Your task to perform on an android device: How much does the new iPad cost on eBay? Image 0: 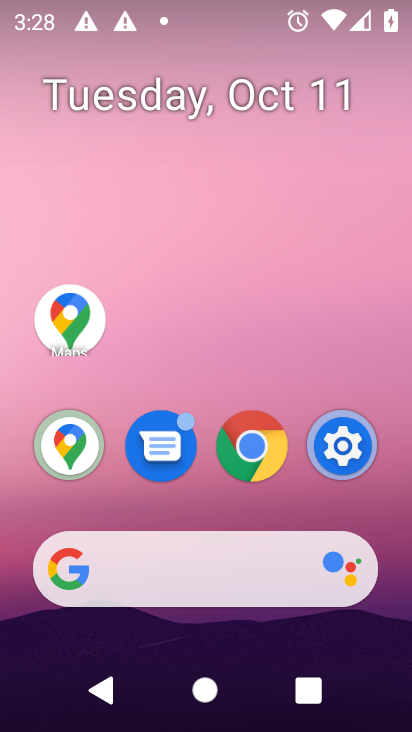
Step 0: click (259, 451)
Your task to perform on an android device: How much does the new iPad cost on eBay? Image 1: 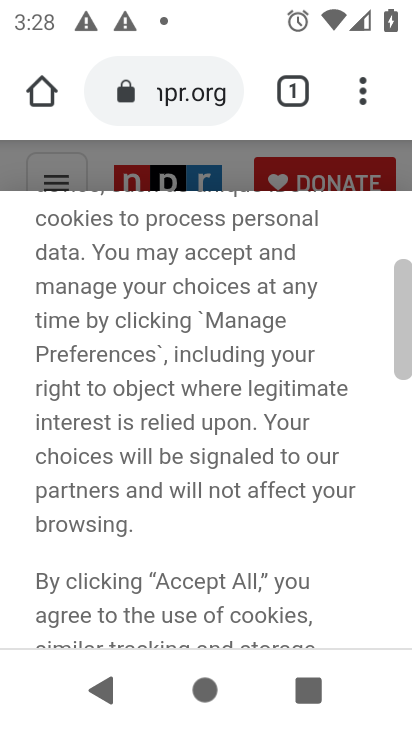
Step 1: click (160, 95)
Your task to perform on an android device: How much does the new iPad cost on eBay? Image 2: 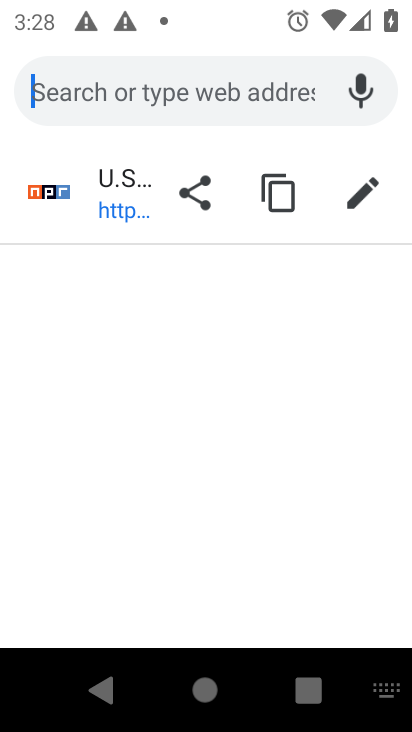
Step 2: type "new iPad cost on eBay"
Your task to perform on an android device: How much does the new iPad cost on eBay? Image 3: 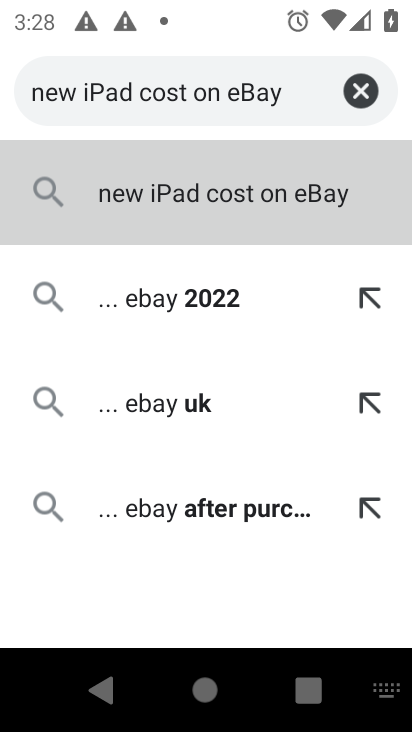
Step 3: click (159, 197)
Your task to perform on an android device: How much does the new iPad cost on eBay? Image 4: 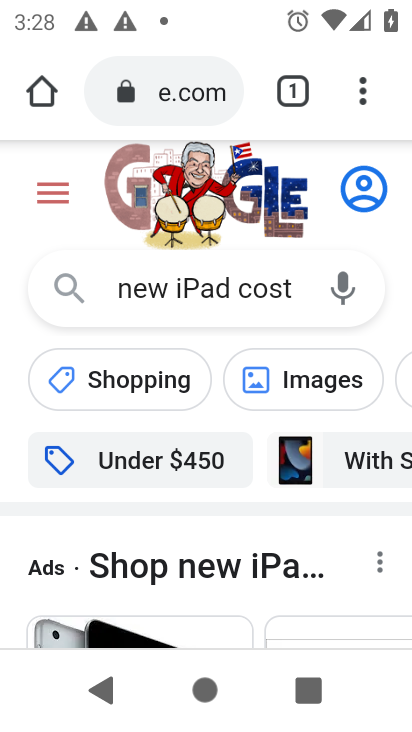
Step 4: drag from (204, 541) to (185, 280)
Your task to perform on an android device: How much does the new iPad cost on eBay? Image 5: 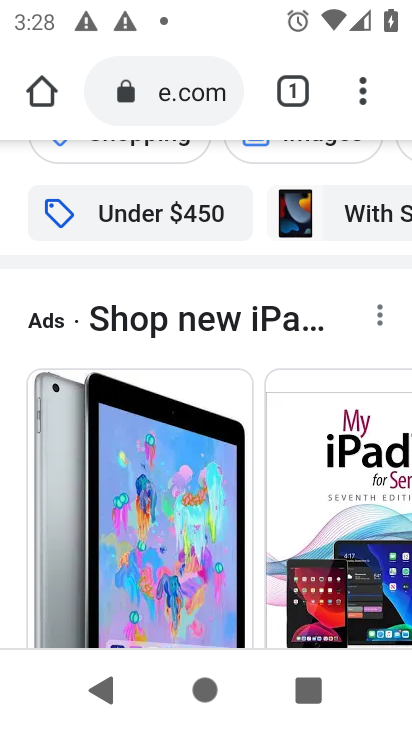
Step 5: drag from (143, 528) to (137, 225)
Your task to perform on an android device: How much does the new iPad cost on eBay? Image 6: 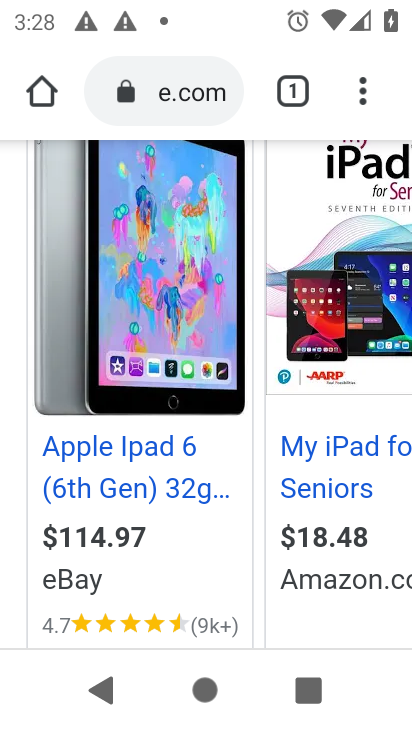
Step 6: click (129, 350)
Your task to perform on an android device: How much does the new iPad cost on eBay? Image 7: 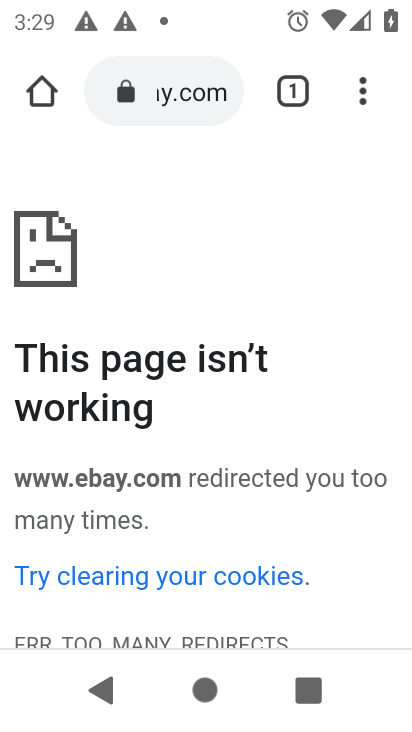
Step 7: task complete